Your task to perform on an android device: toggle airplane mode Image 0: 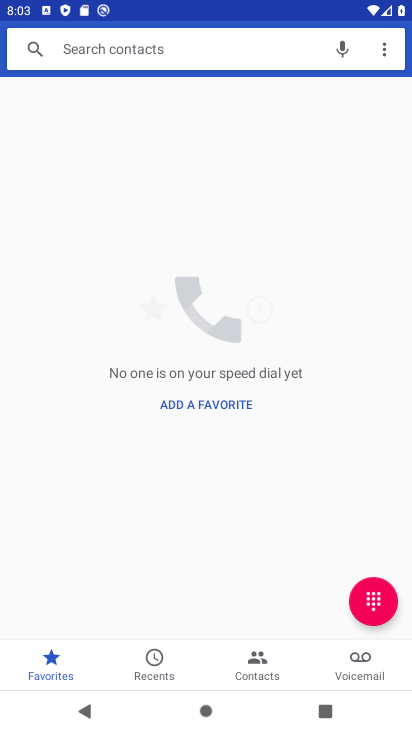
Step 0: press home button
Your task to perform on an android device: toggle airplane mode Image 1: 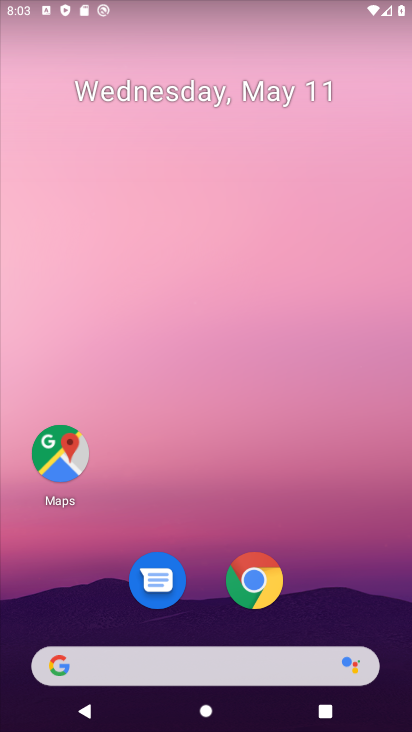
Step 1: drag from (213, 434) to (202, 255)
Your task to perform on an android device: toggle airplane mode Image 2: 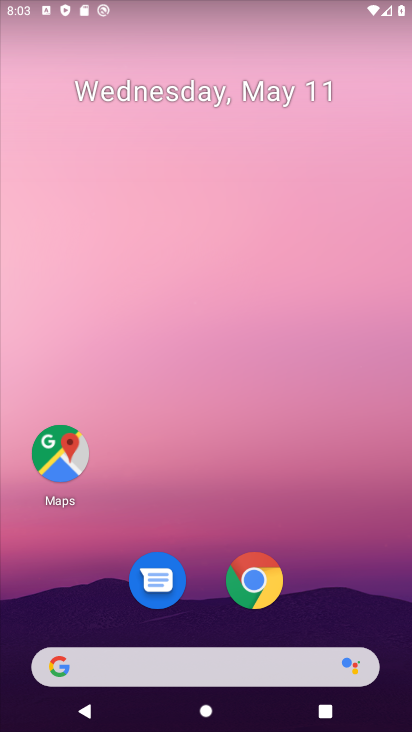
Step 2: drag from (282, 713) to (257, 43)
Your task to perform on an android device: toggle airplane mode Image 3: 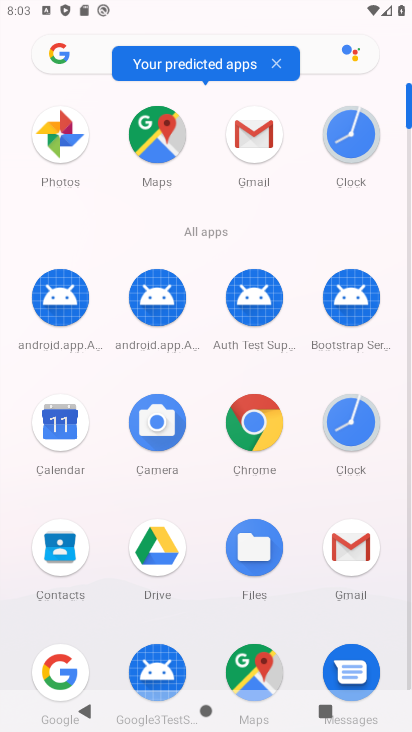
Step 3: drag from (266, 641) to (226, 140)
Your task to perform on an android device: toggle airplane mode Image 4: 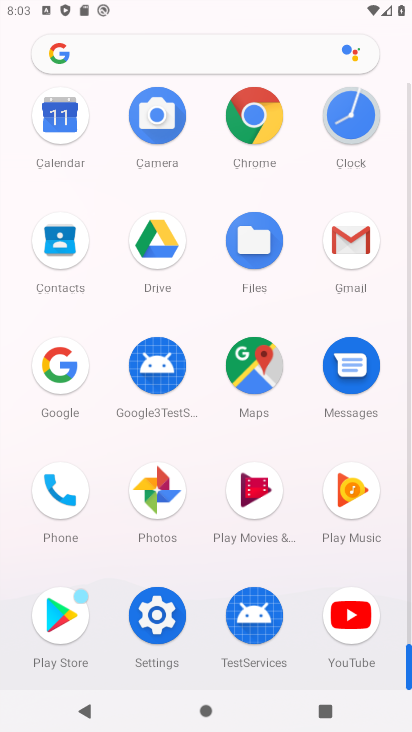
Step 4: click (144, 625)
Your task to perform on an android device: toggle airplane mode Image 5: 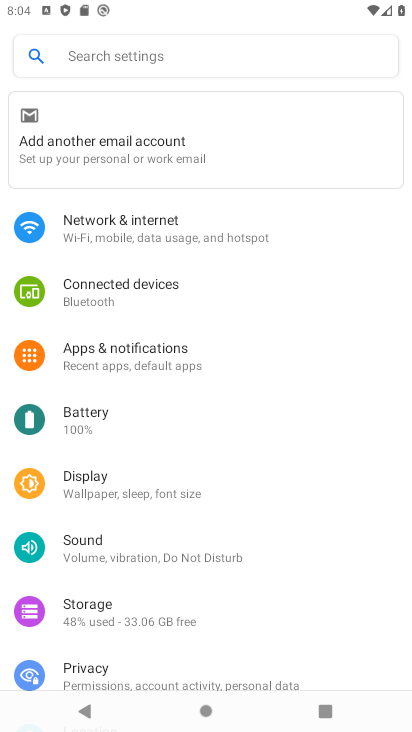
Step 5: click (204, 228)
Your task to perform on an android device: toggle airplane mode Image 6: 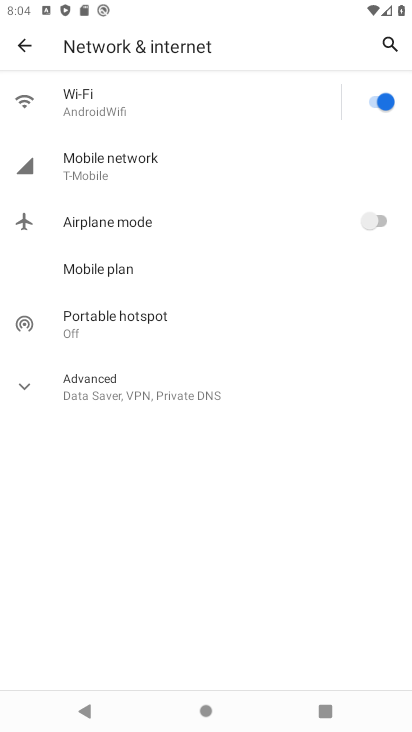
Step 6: click (375, 226)
Your task to perform on an android device: toggle airplane mode Image 7: 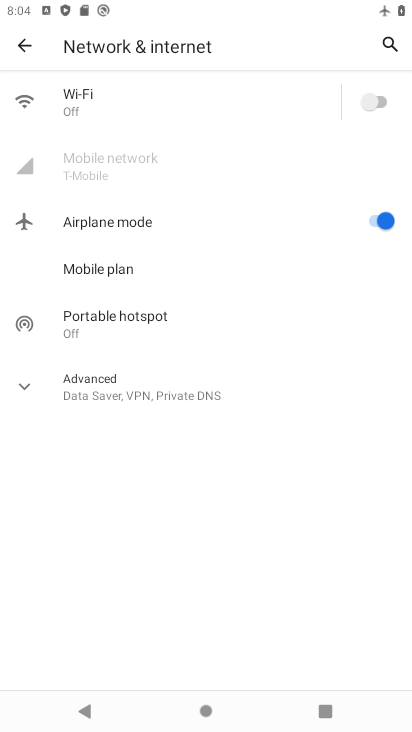
Step 7: task complete